Your task to perform on an android device: add a label to a message in the gmail app Image 0: 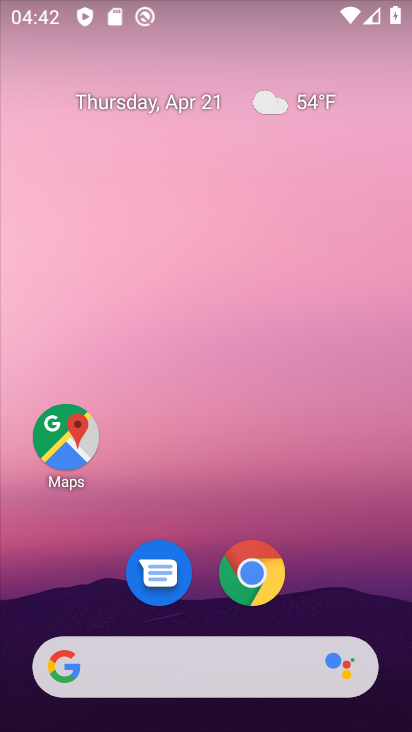
Step 0: drag from (384, 625) to (315, 153)
Your task to perform on an android device: add a label to a message in the gmail app Image 1: 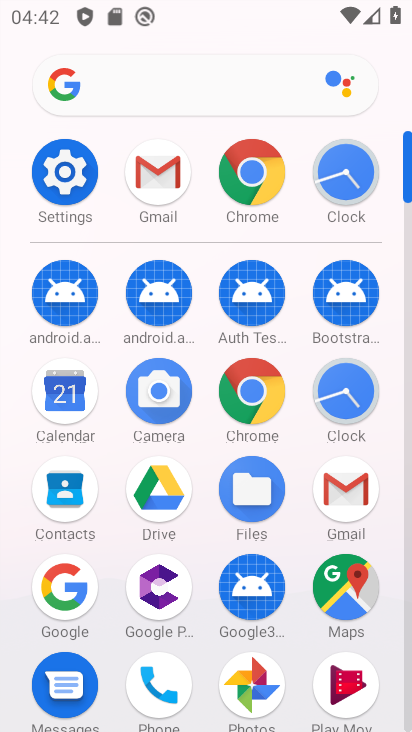
Step 1: click (409, 706)
Your task to perform on an android device: add a label to a message in the gmail app Image 2: 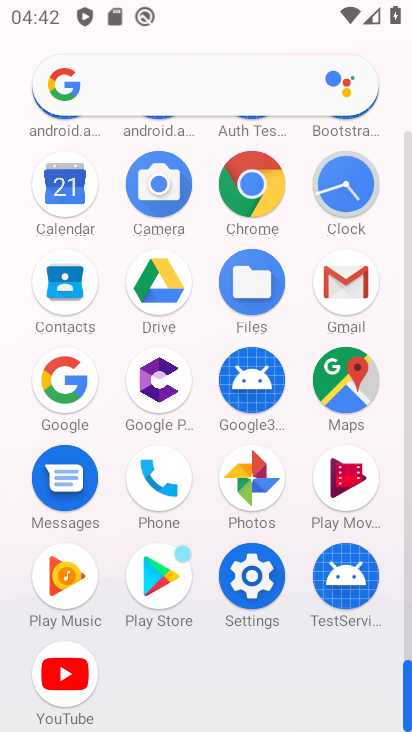
Step 2: click (344, 282)
Your task to perform on an android device: add a label to a message in the gmail app Image 3: 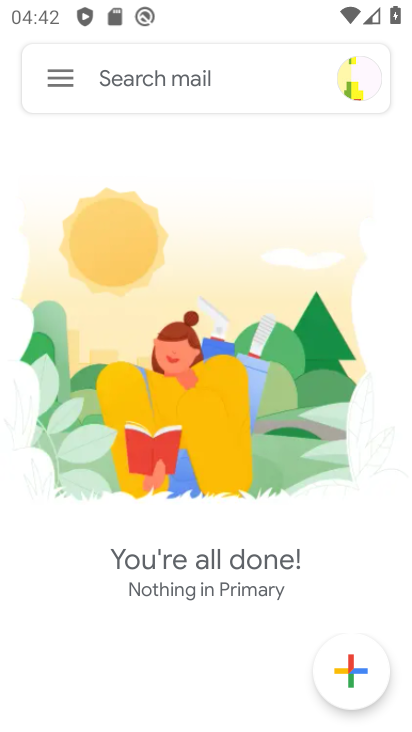
Step 3: click (55, 75)
Your task to perform on an android device: add a label to a message in the gmail app Image 4: 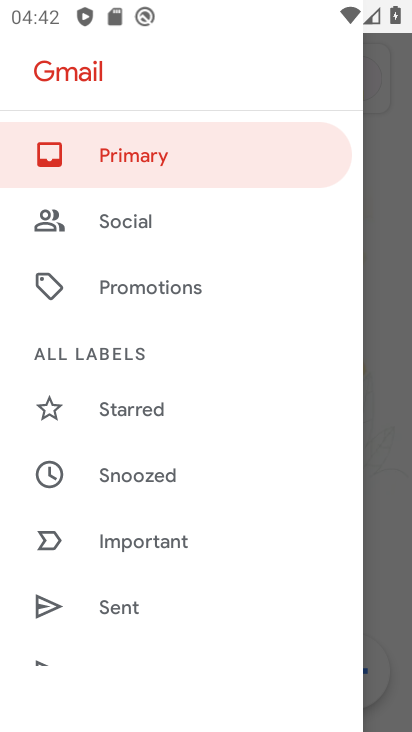
Step 4: drag from (226, 549) to (236, 111)
Your task to perform on an android device: add a label to a message in the gmail app Image 5: 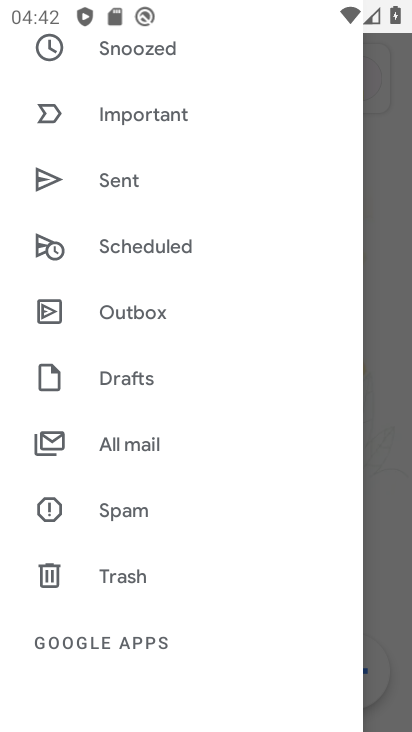
Step 5: click (115, 438)
Your task to perform on an android device: add a label to a message in the gmail app Image 6: 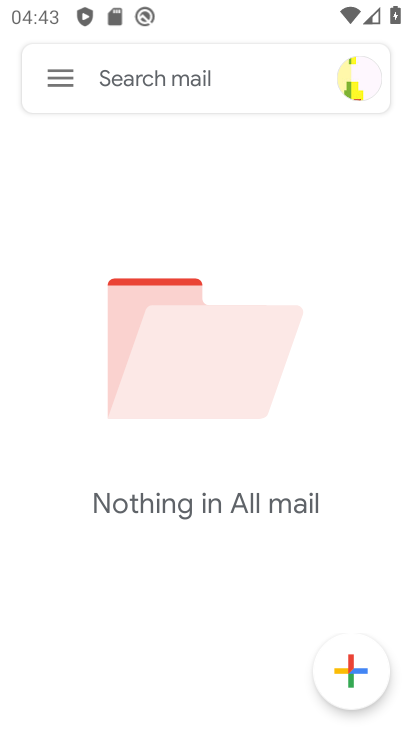
Step 6: task complete